Your task to perform on an android device: turn on wifi Image 0: 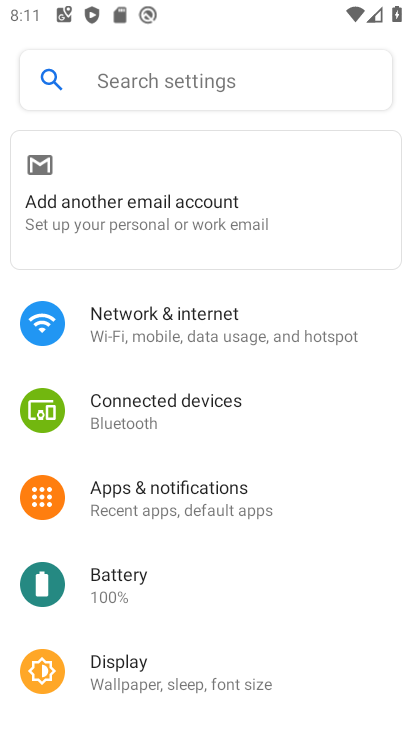
Step 0: click (142, 303)
Your task to perform on an android device: turn on wifi Image 1: 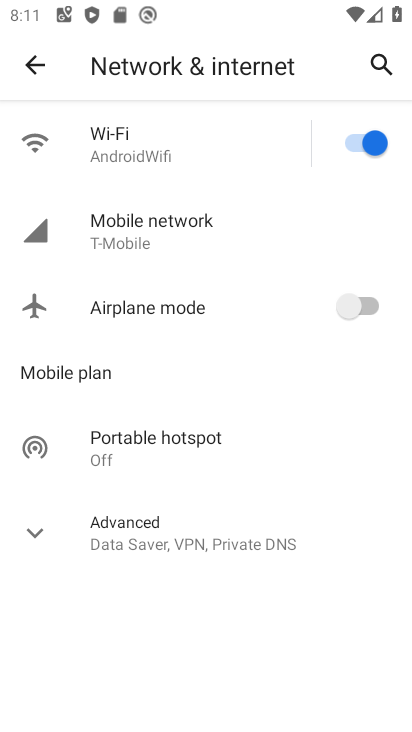
Step 1: task complete